Your task to perform on an android device: Go to battery settings Image 0: 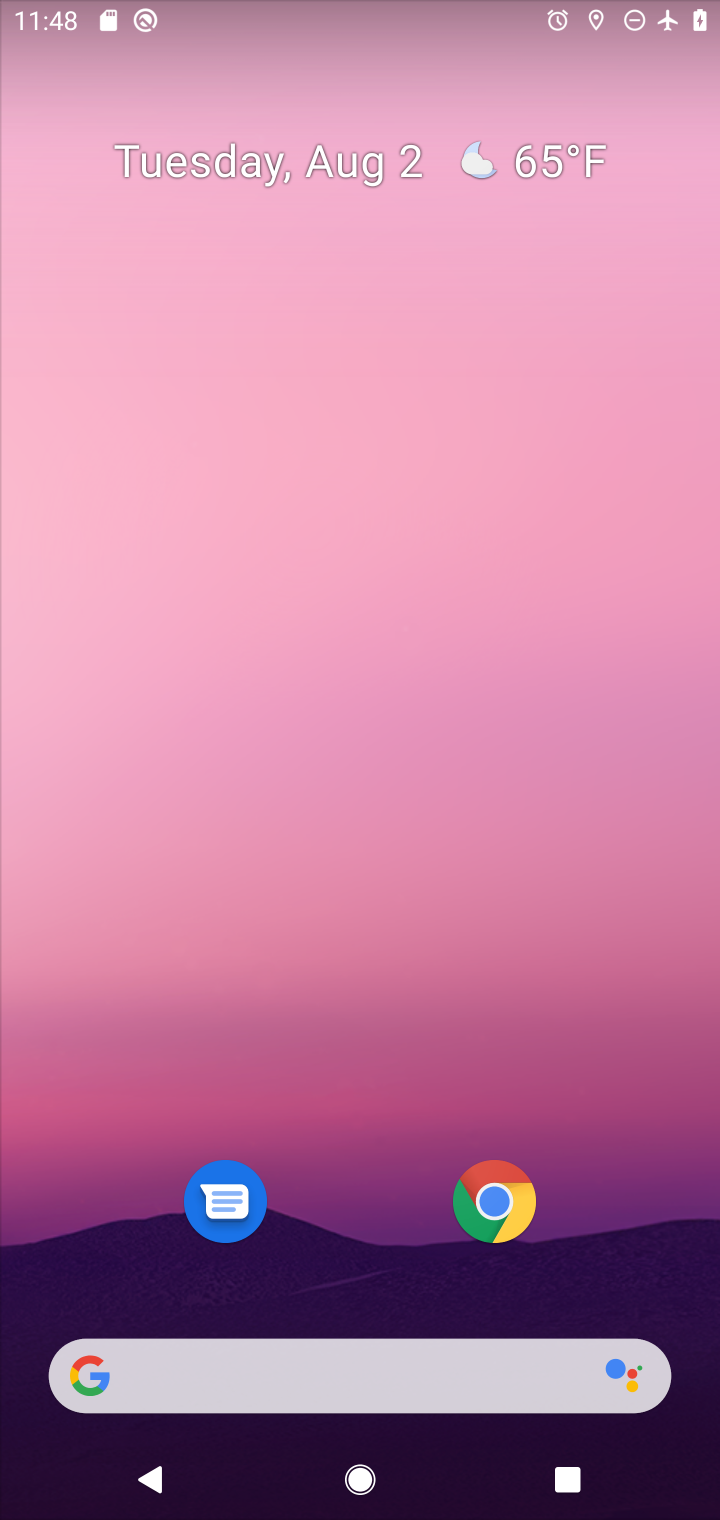
Step 0: drag from (385, 1198) to (611, 101)
Your task to perform on an android device: Go to battery settings Image 1: 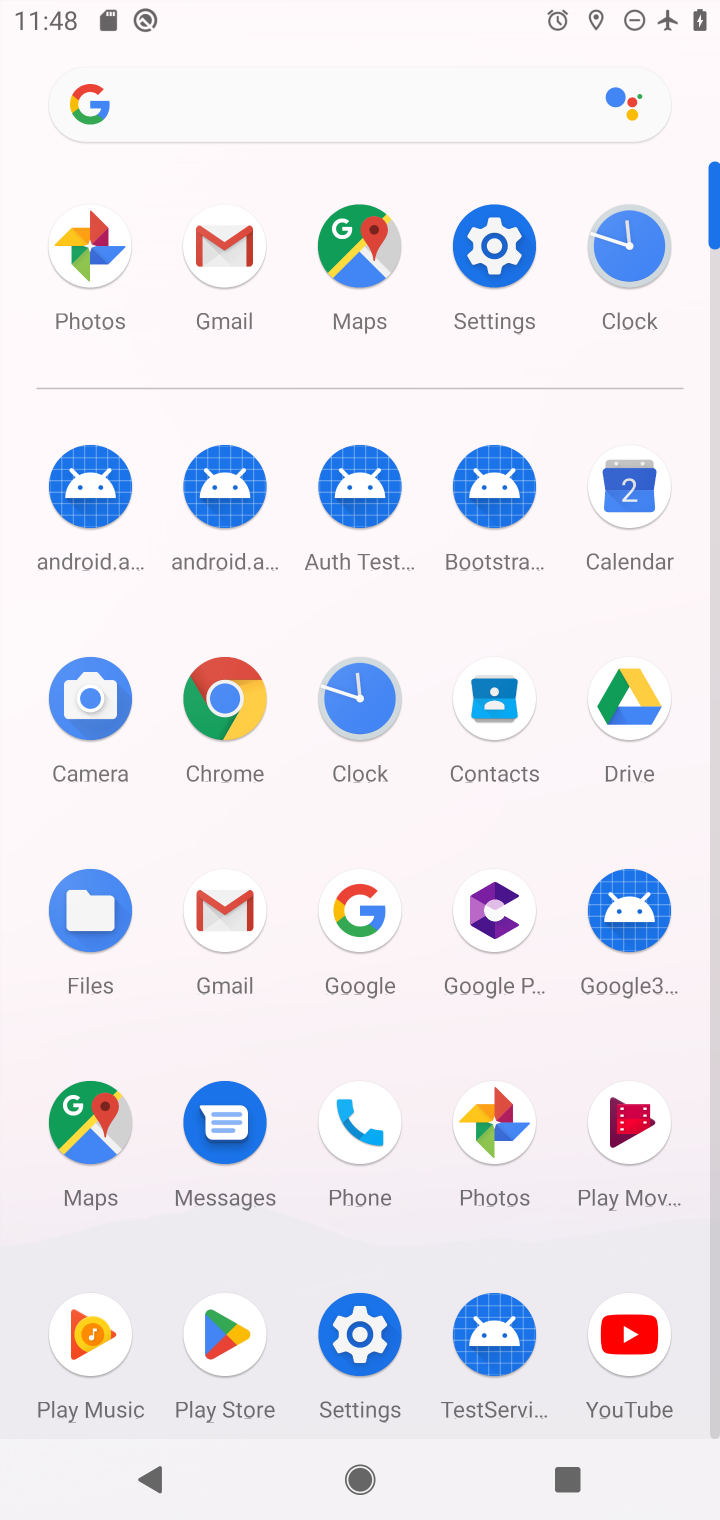
Step 1: click (383, 1388)
Your task to perform on an android device: Go to battery settings Image 2: 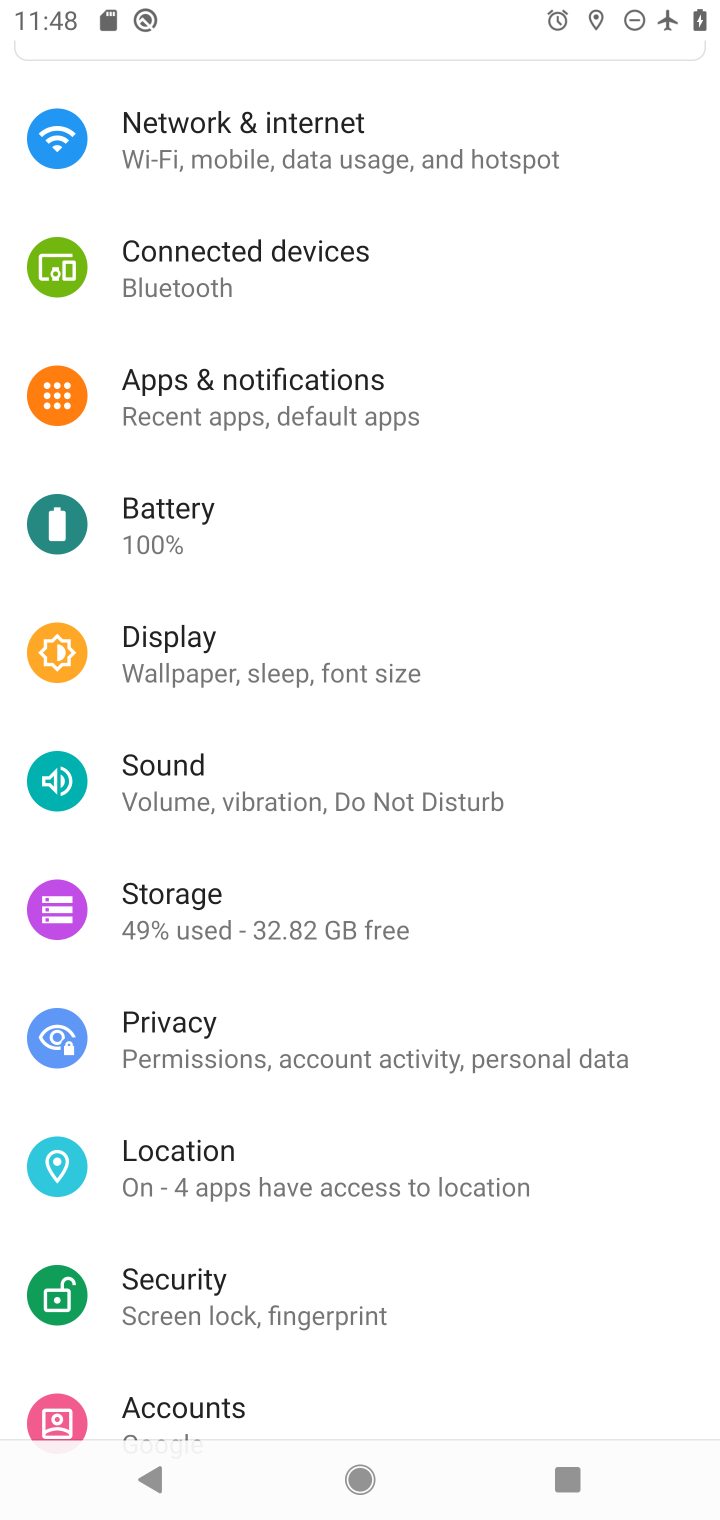
Step 2: click (215, 559)
Your task to perform on an android device: Go to battery settings Image 3: 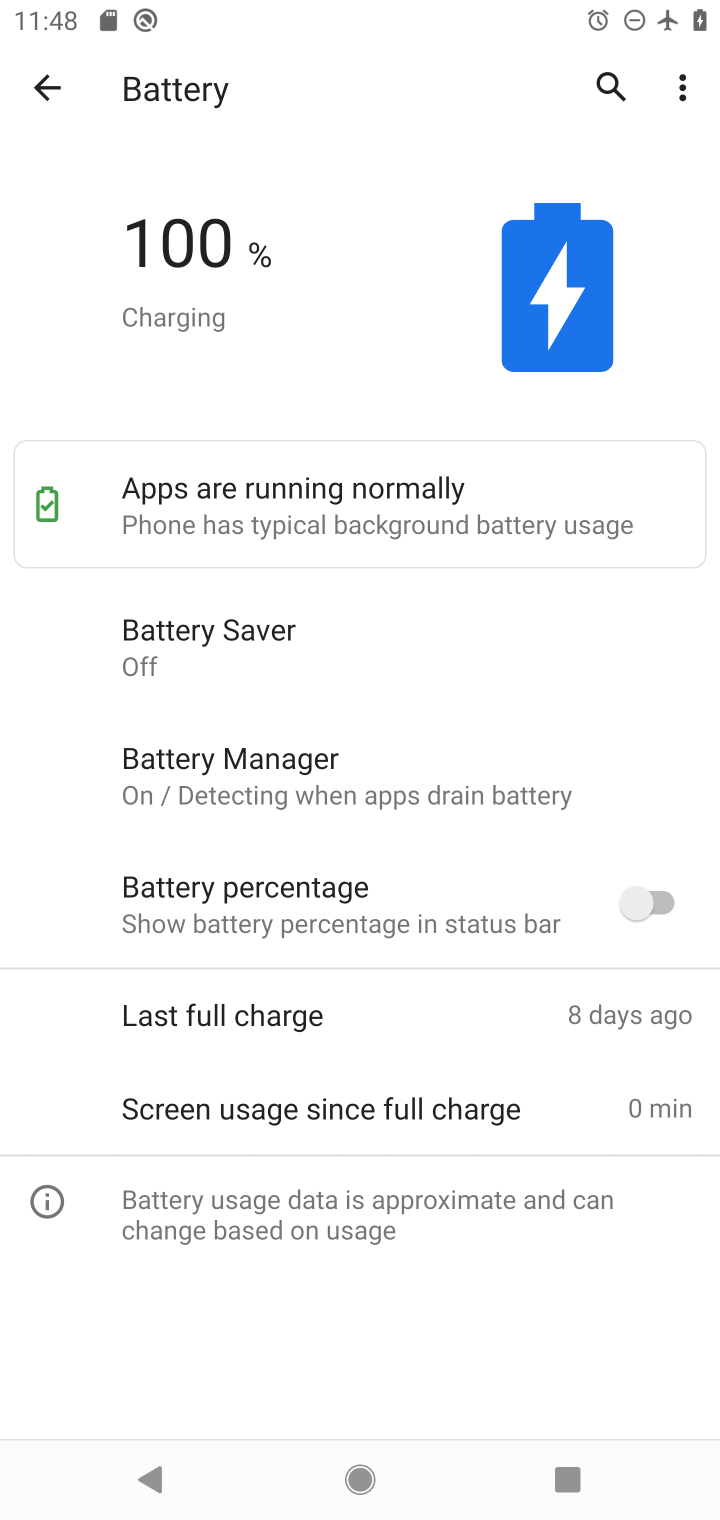
Step 3: task complete